Your task to perform on an android device: Open Google Maps and go to "Timeline" Image 0: 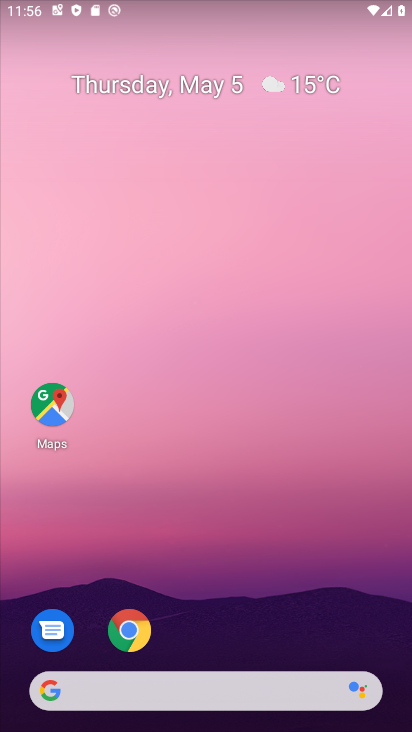
Step 0: drag from (294, 580) to (163, 53)
Your task to perform on an android device: Open Google Maps and go to "Timeline" Image 1: 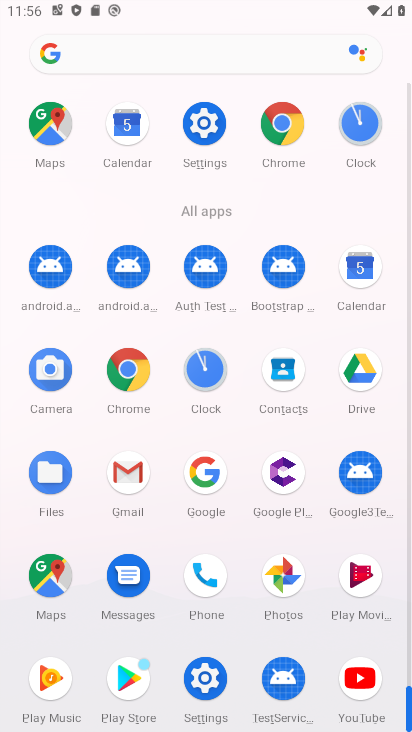
Step 1: click (63, 580)
Your task to perform on an android device: Open Google Maps and go to "Timeline" Image 2: 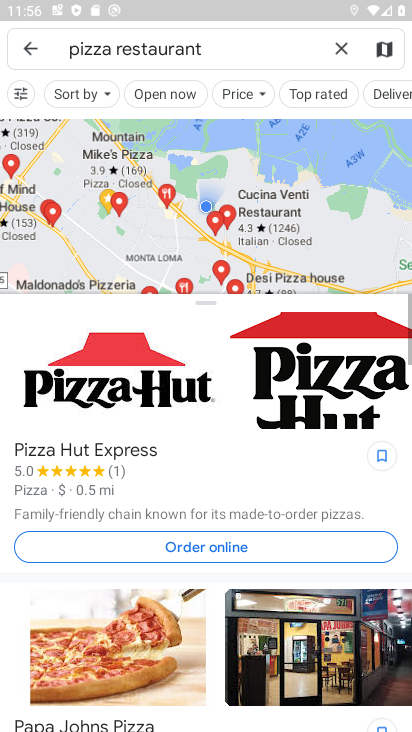
Step 2: click (32, 40)
Your task to perform on an android device: Open Google Maps and go to "Timeline" Image 3: 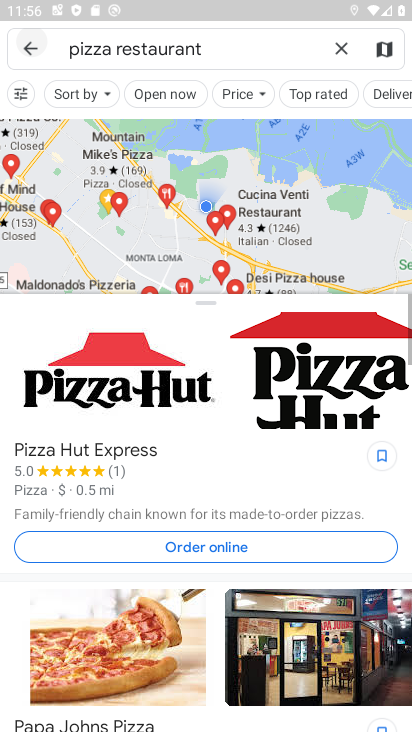
Step 3: click (32, 40)
Your task to perform on an android device: Open Google Maps and go to "Timeline" Image 4: 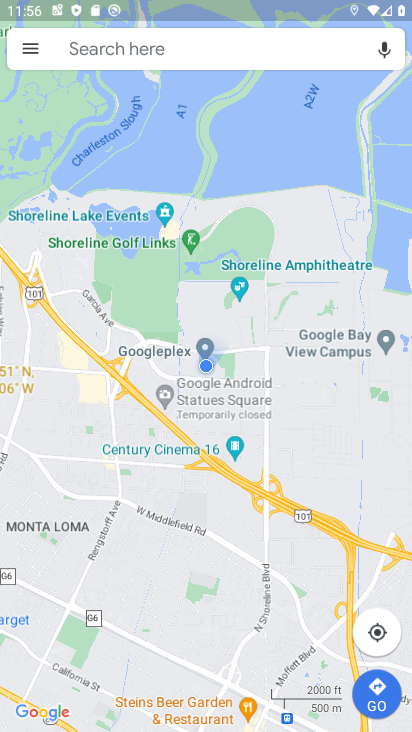
Step 4: click (32, 40)
Your task to perform on an android device: Open Google Maps and go to "Timeline" Image 5: 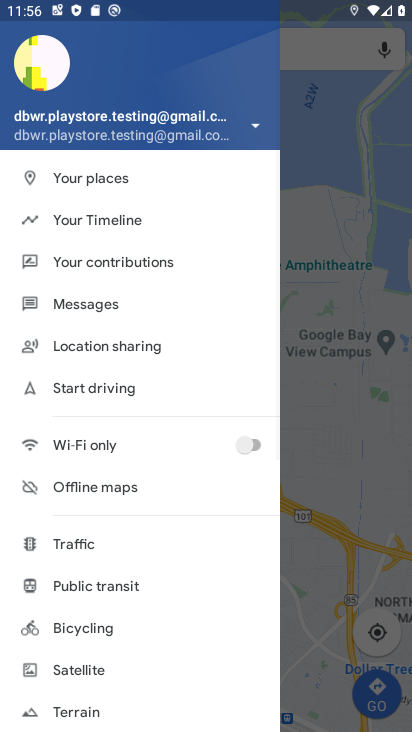
Step 5: click (96, 218)
Your task to perform on an android device: Open Google Maps and go to "Timeline" Image 6: 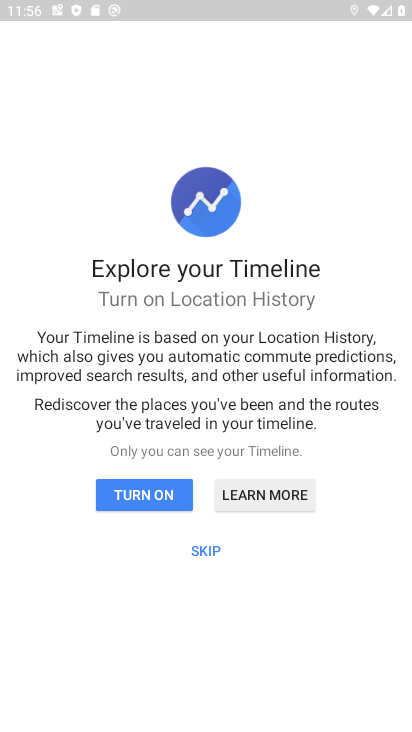
Step 6: click (198, 550)
Your task to perform on an android device: Open Google Maps and go to "Timeline" Image 7: 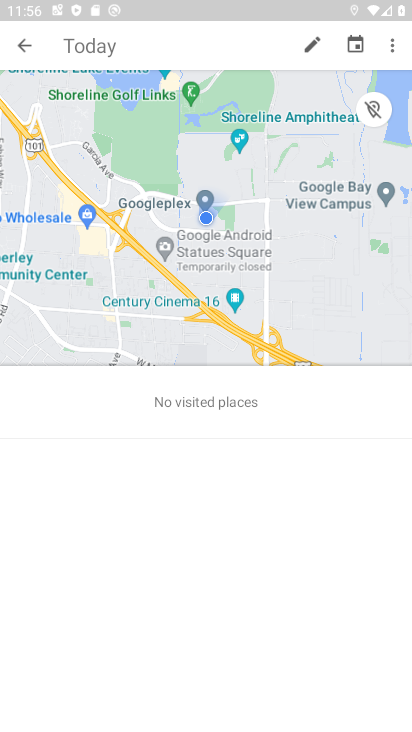
Step 7: task complete